Your task to perform on an android device: set default search engine in the chrome app Image 0: 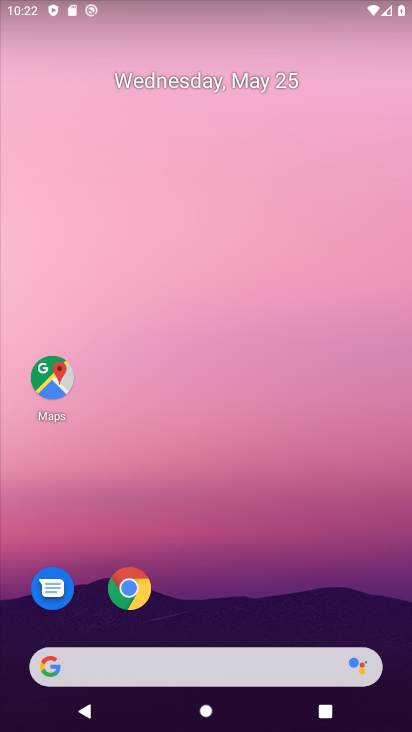
Step 0: click (135, 584)
Your task to perform on an android device: set default search engine in the chrome app Image 1: 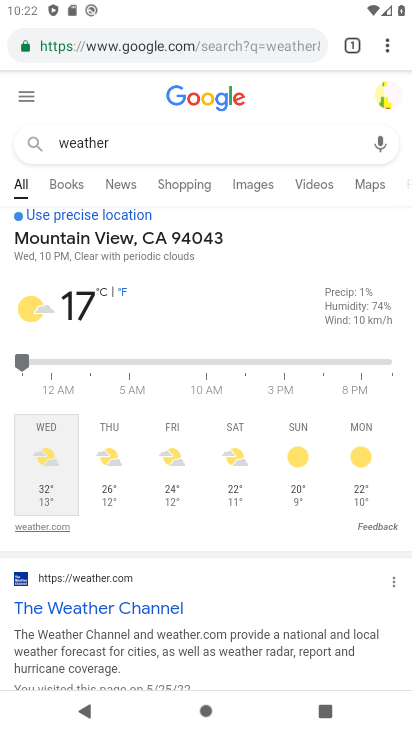
Step 1: click (389, 41)
Your task to perform on an android device: set default search engine in the chrome app Image 2: 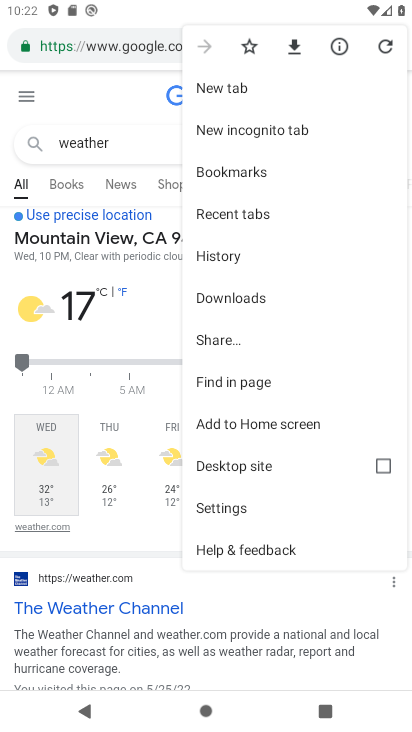
Step 2: click (237, 510)
Your task to perform on an android device: set default search engine in the chrome app Image 3: 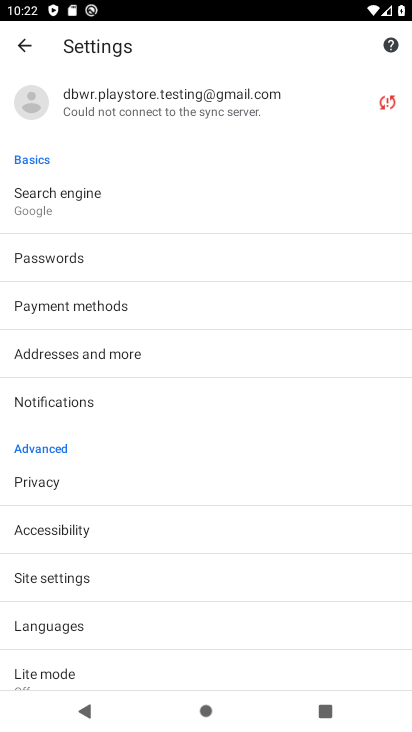
Step 3: click (104, 202)
Your task to perform on an android device: set default search engine in the chrome app Image 4: 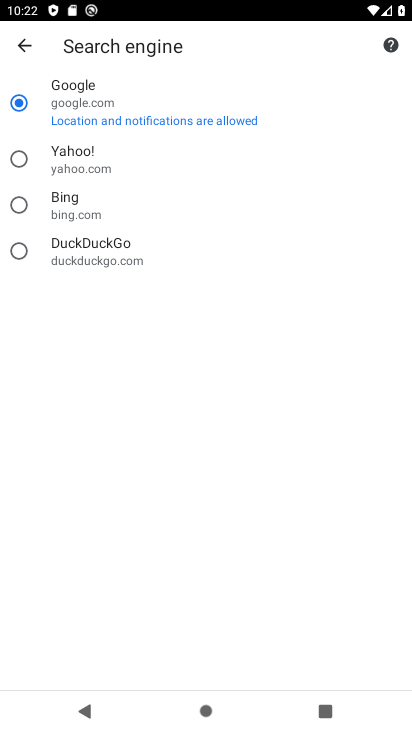
Step 4: task complete